Your task to perform on an android device: check out phone information Image 0: 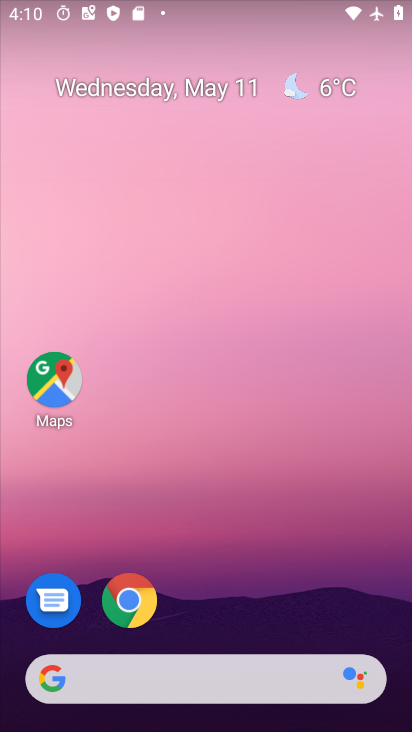
Step 0: drag from (301, 690) to (231, 202)
Your task to perform on an android device: check out phone information Image 1: 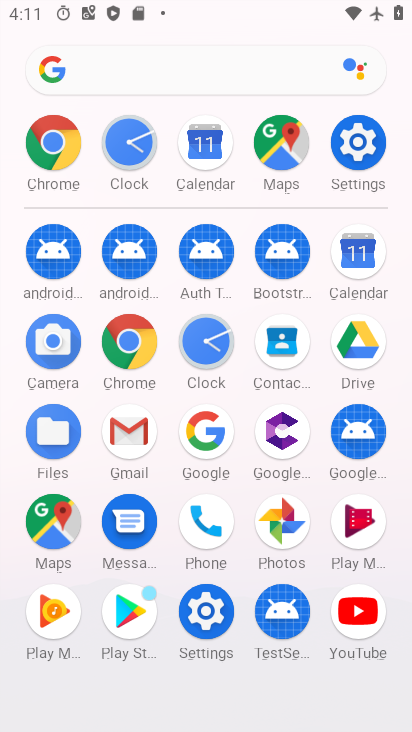
Step 1: click (344, 148)
Your task to perform on an android device: check out phone information Image 2: 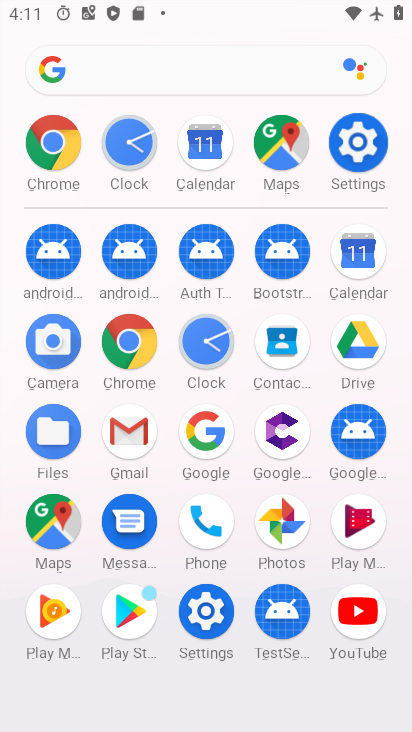
Step 2: click (343, 162)
Your task to perform on an android device: check out phone information Image 3: 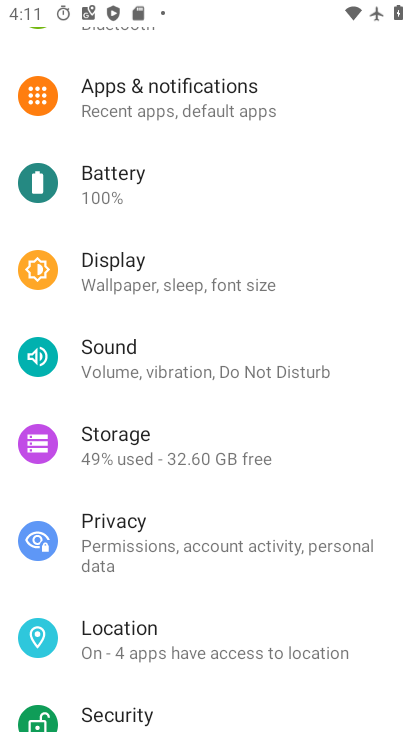
Step 3: drag from (174, 701) to (188, 215)
Your task to perform on an android device: check out phone information Image 4: 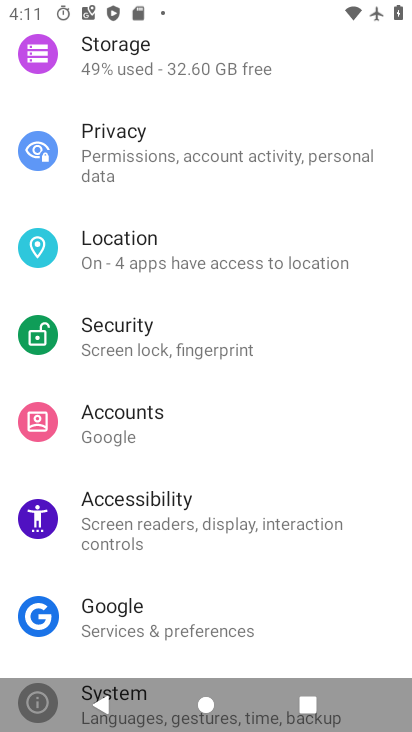
Step 4: drag from (284, 471) to (286, 9)
Your task to perform on an android device: check out phone information Image 5: 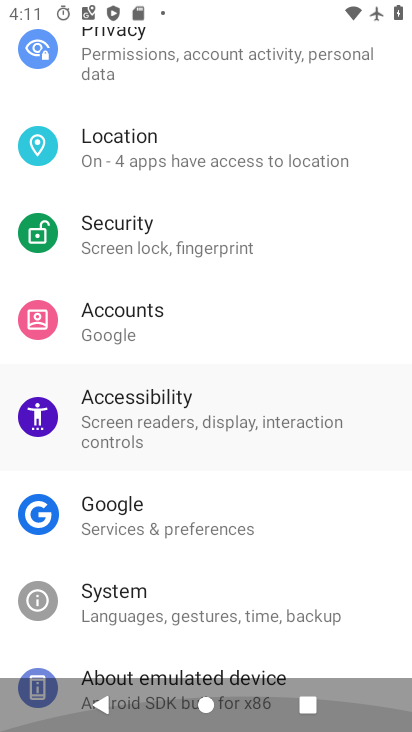
Step 5: drag from (311, 550) to (301, 92)
Your task to perform on an android device: check out phone information Image 6: 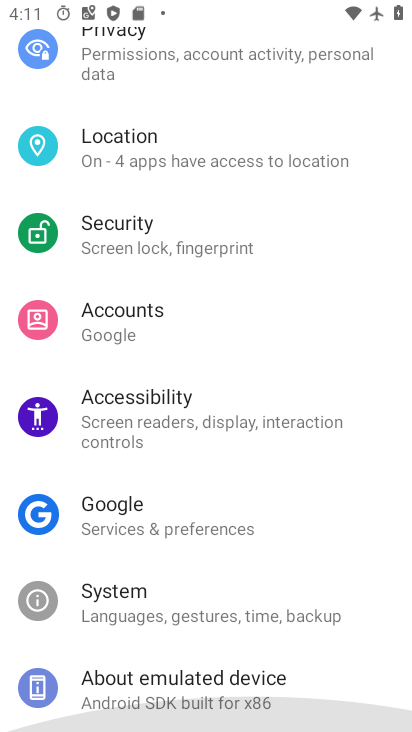
Step 6: drag from (283, 495) to (269, 136)
Your task to perform on an android device: check out phone information Image 7: 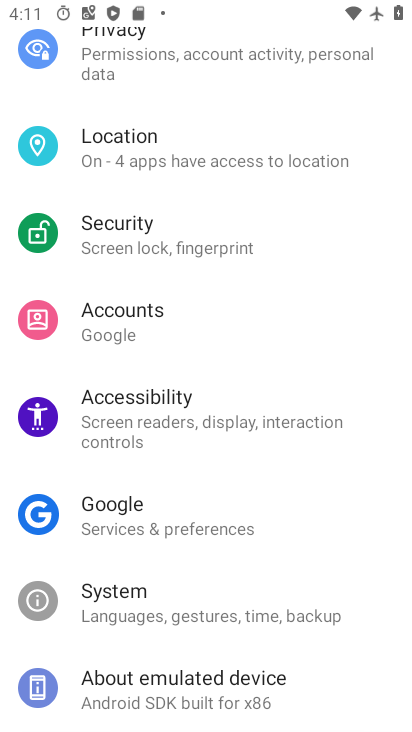
Step 7: click (186, 676)
Your task to perform on an android device: check out phone information Image 8: 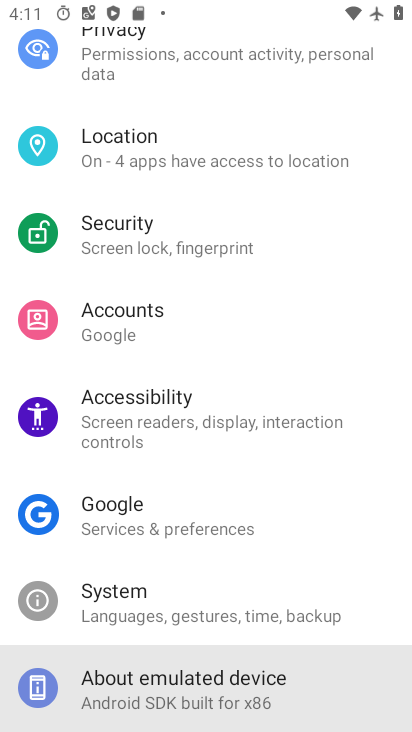
Step 8: click (186, 676)
Your task to perform on an android device: check out phone information Image 9: 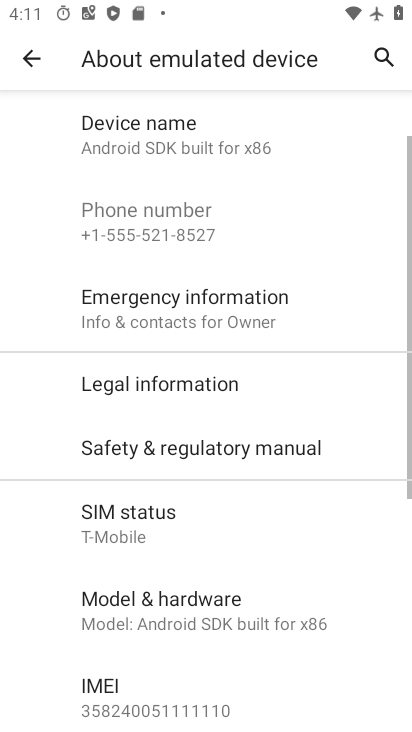
Step 9: task complete